Your task to perform on an android device: turn on airplane mode Image 0: 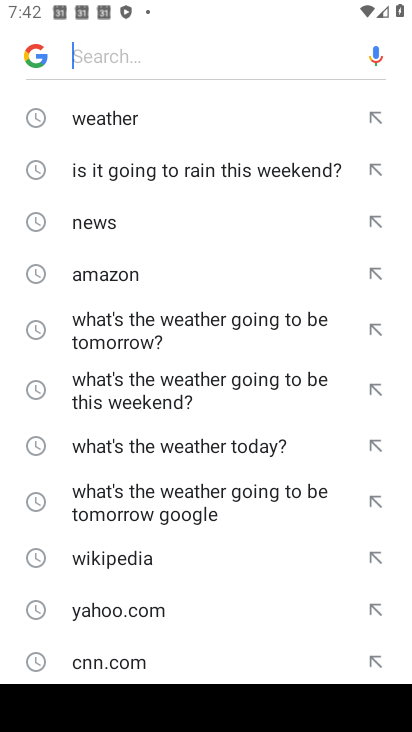
Step 0: press home button
Your task to perform on an android device: turn on airplane mode Image 1: 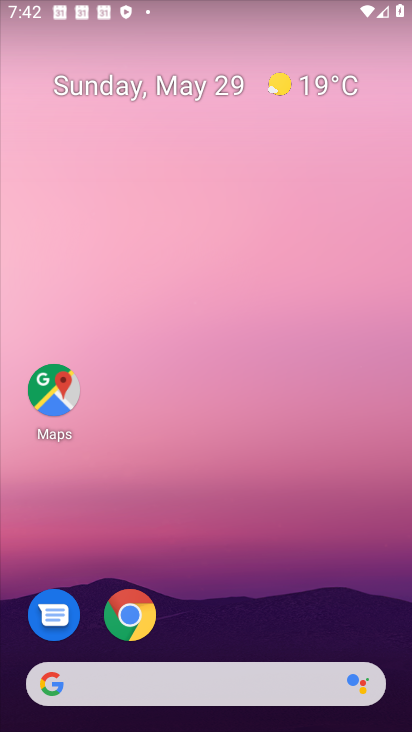
Step 1: drag from (174, 10) to (184, 600)
Your task to perform on an android device: turn on airplane mode Image 2: 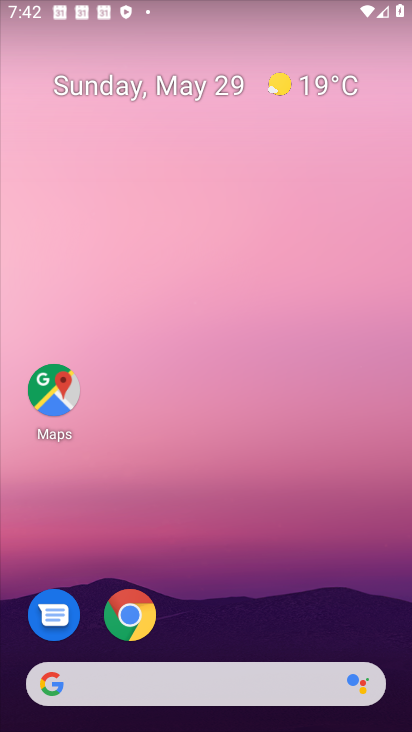
Step 2: drag from (207, 14) to (244, 584)
Your task to perform on an android device: turn on airplane mode Image 3: 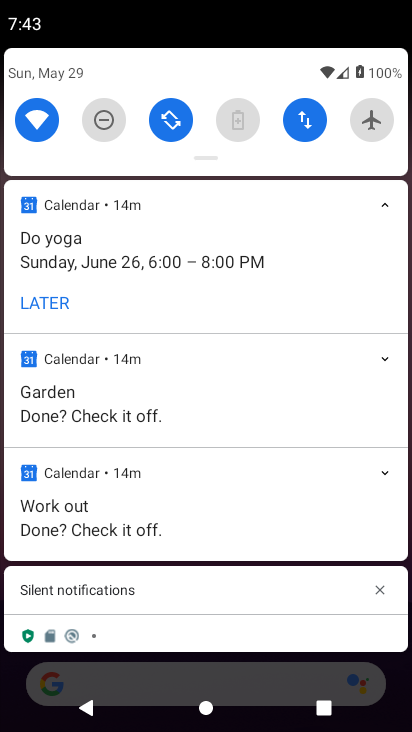
Step 3: click (382, 113)
Your task to perform on an android device: turn on airplane mode Image 4: 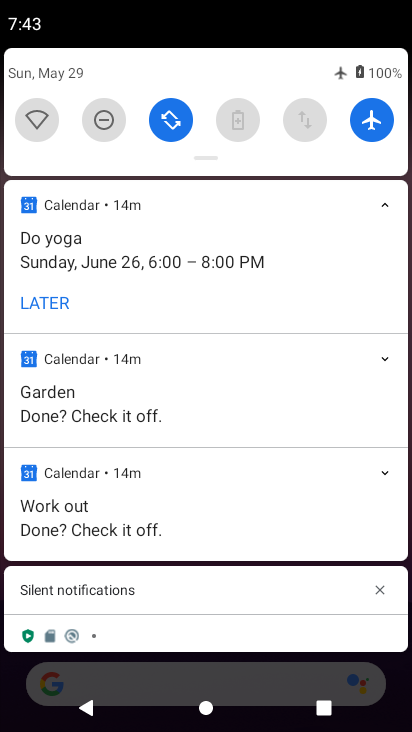
Step 4: task complete